Your task to perform on an android device: Open the map Image 0: 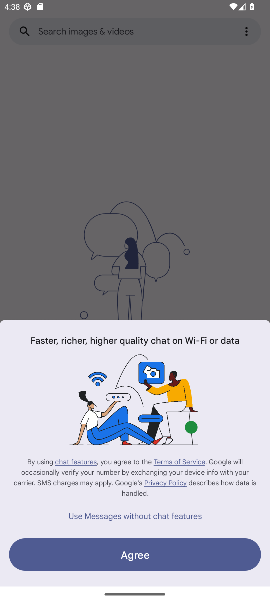
Step 0: press home button
Your task to perform on an android device: Open the map Image 1: 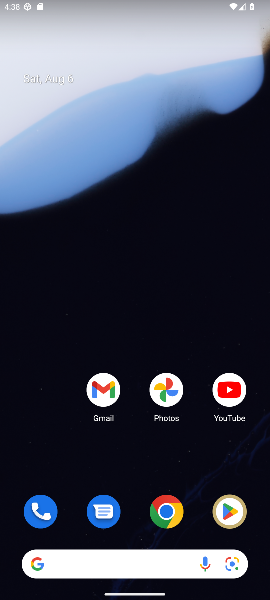
Step 1: drag from (133, 438) to (171, 0)
Your task to perform on an android device: Open the map Image 2: 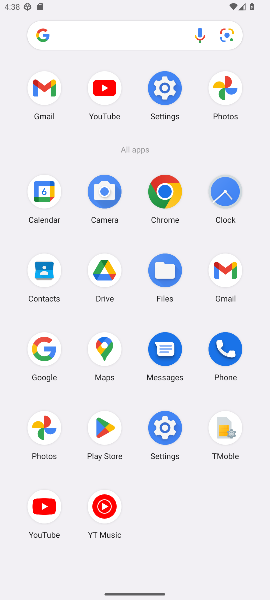
Step 2: click (105, 352)
Your task to perform on an android device: Open the map Image 3: 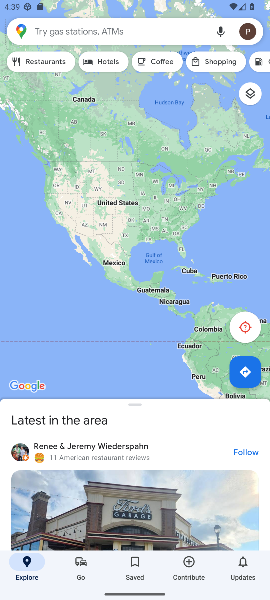
Step 3: task complete